Your task to perform on an android device: Open Google Maps and go to "Timeline" Image 0: 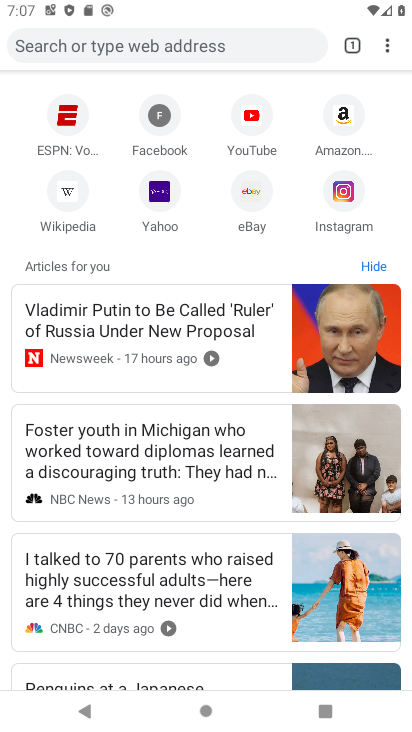
Step 0: press home button
Your task to perform on an android device: Open Google Maps and go to "Timeline" Image 1: 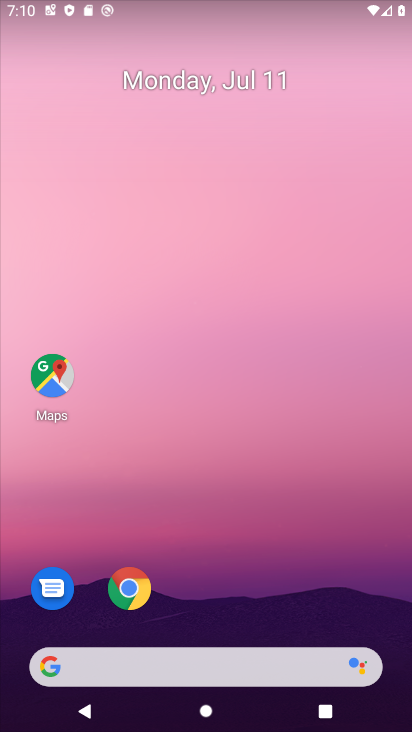
Step 1: drag from (384, 630) to (131, 93)
Your task to perform on an android device: Open Google Maps and go to "Timeline" Image 2: 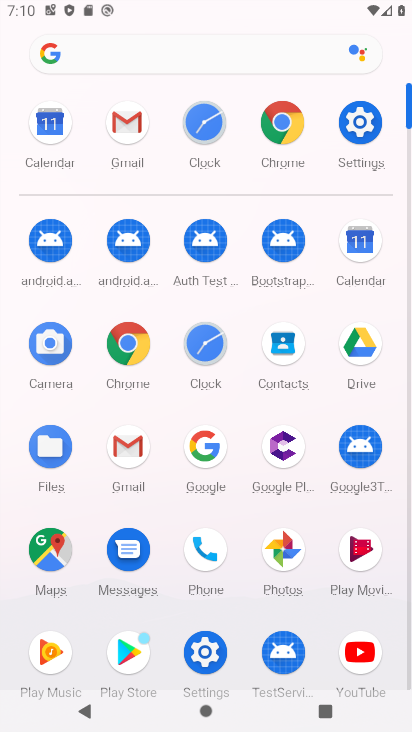
Step 2: click (66, 554)
Your task to perform on an android device: Open Google Maps and go to "Timeline" Image 3: 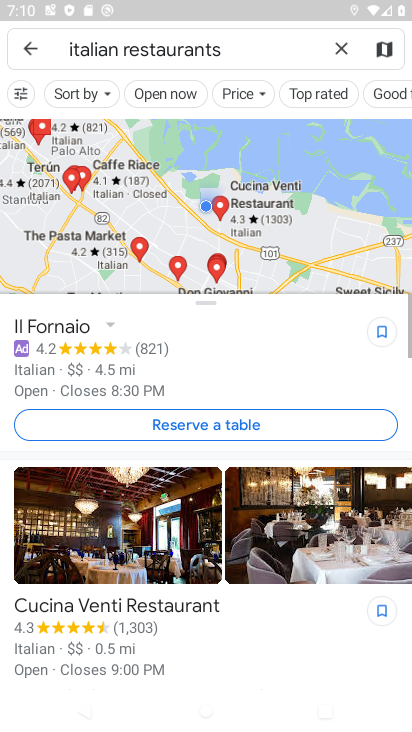
Step 3: press back button
Your task to perform on an android device: Open Google Maps and go to "Timeline" Image 4: 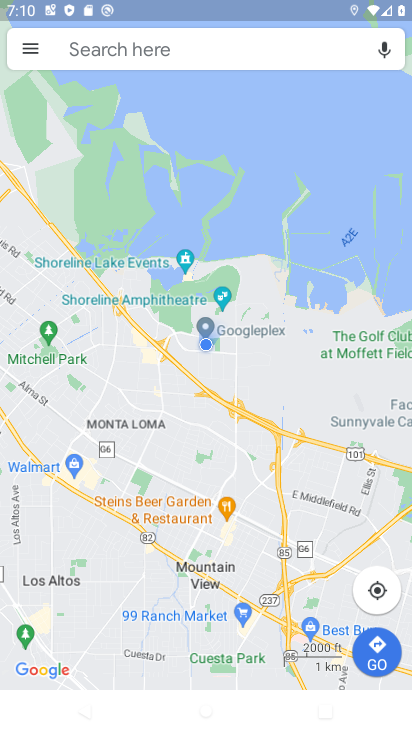
Step 4: click (33, 54)
Your task to perform on an android device: Open Google Maps and go to "Timeline" Image 5: 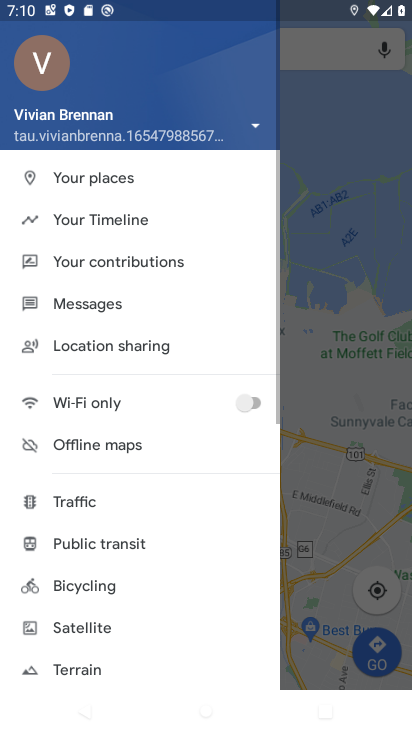
Step 5: click (106, 215)
Your task to perform on an android device: Open Google Maps and go to "Timeline" Image 6: 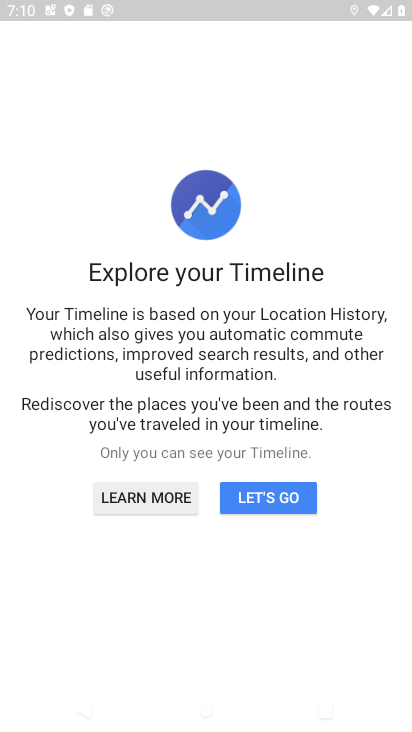
Step 6: task complete